Your task to perform on an android device: Open Reddit.com Image 0: 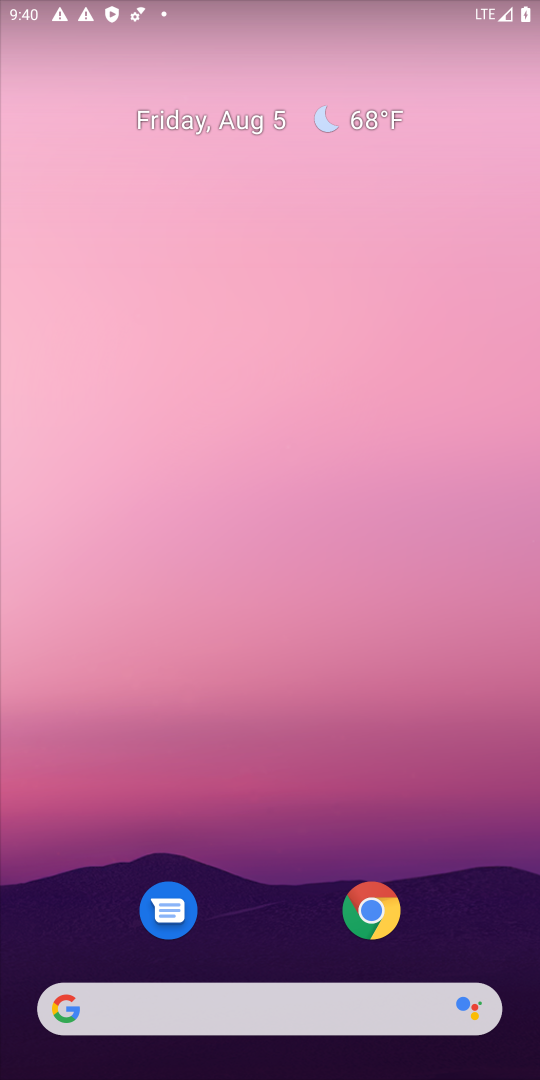
Step 0: drag from (255, 924) to (187, 31)
Your task to perform on an android device: Open Reddit.com Image 1: 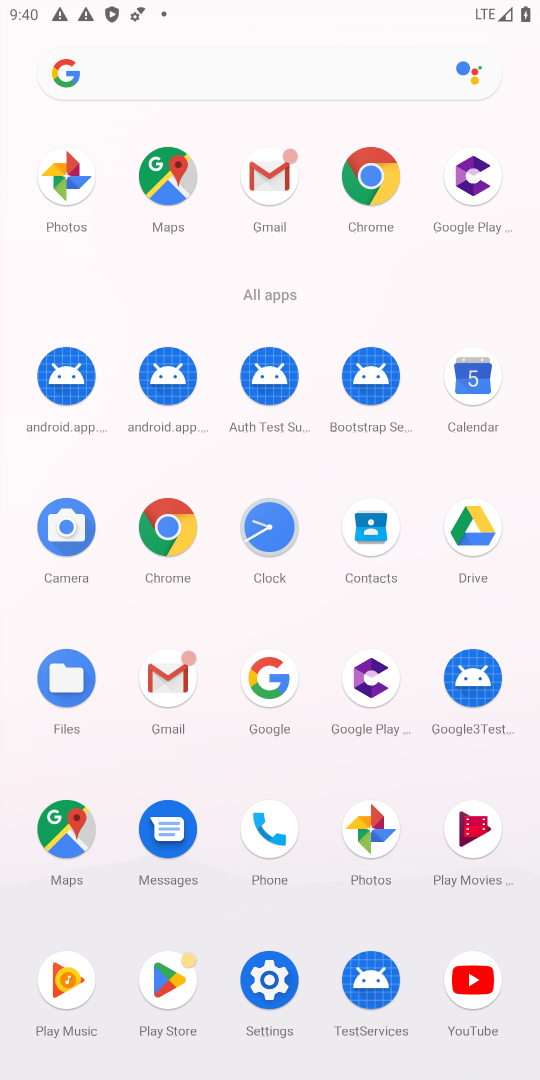
Step 1: click (267, 545)
Your task to perform on an android device: Open Reddit.com Image 2: 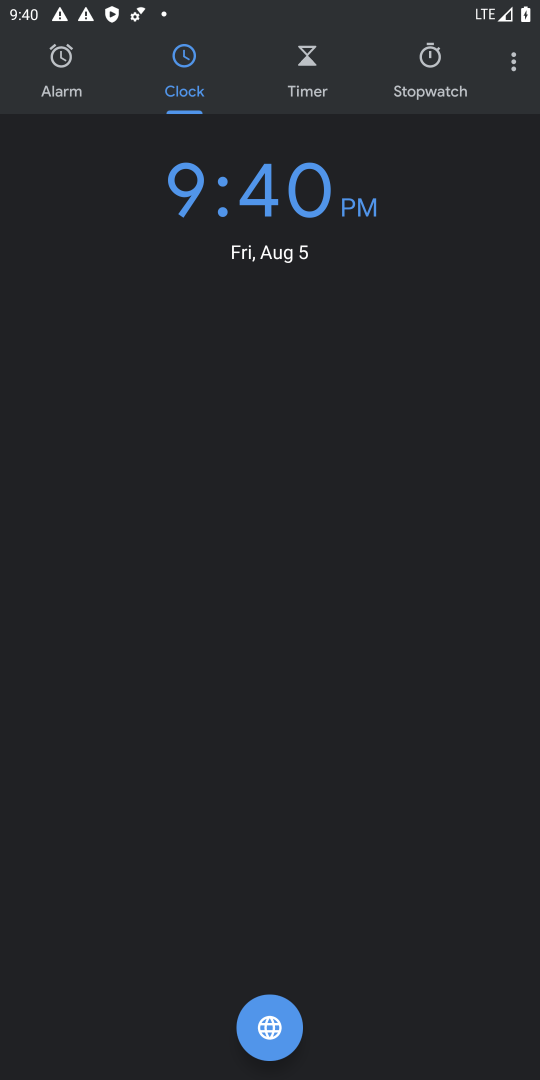
Step 2: press home button
Your task to perform on an android device: Open Reddit.com Image 3: 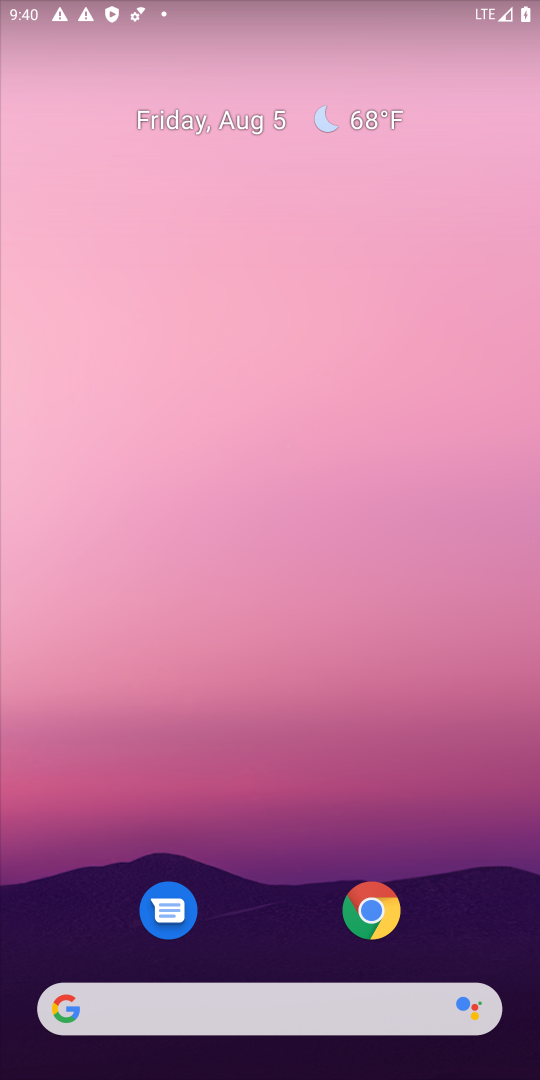
Step 3: click (385, 904)
Your task to perform on an android device: Open Reddit.com Image 4: 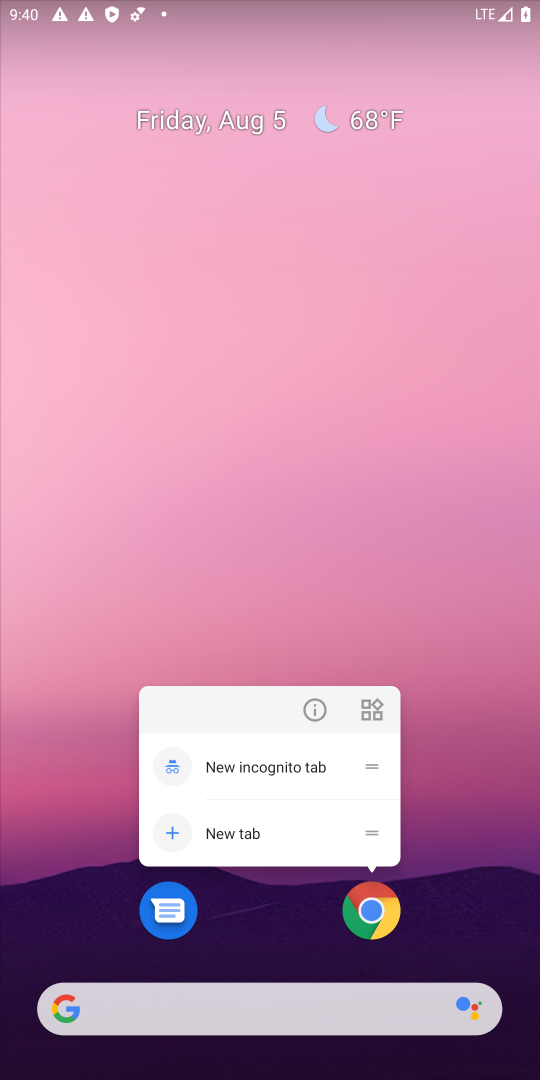
Step 4: click (370, 470)
Your task to perform on an android device: Open Reddit.com Image 5: 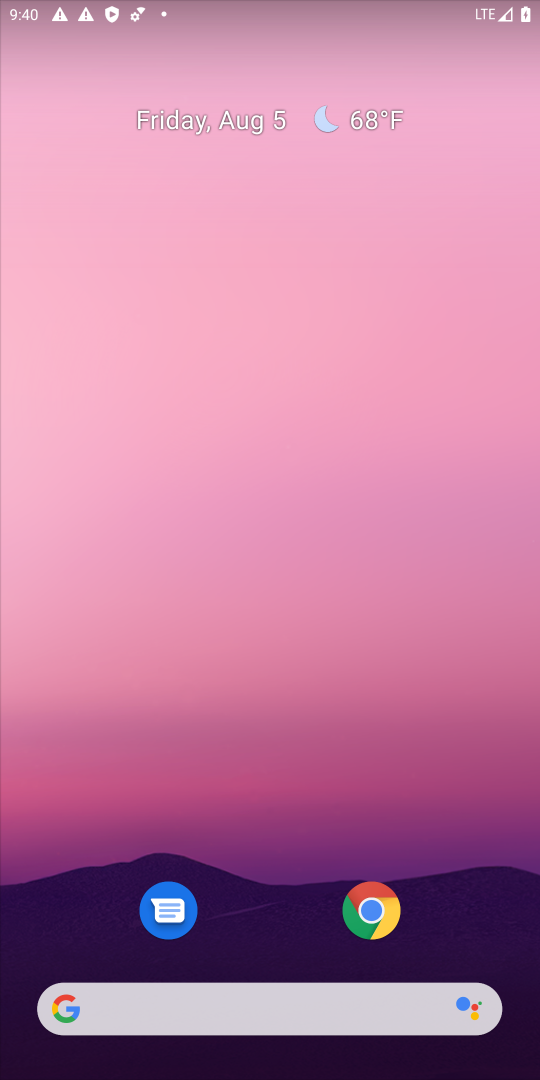
Step 5: click (381, 927)
Your task to perform on an android device: Open Reddit.com Image 6: 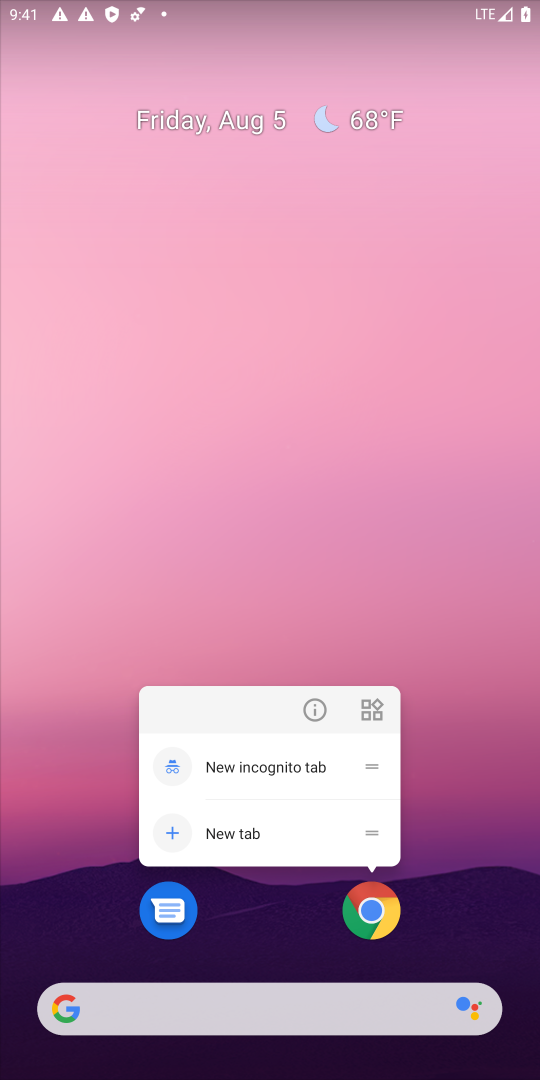
Step 6: click (518, 681)
Your task to perform on an android device: Open Reddit.com Image 7: 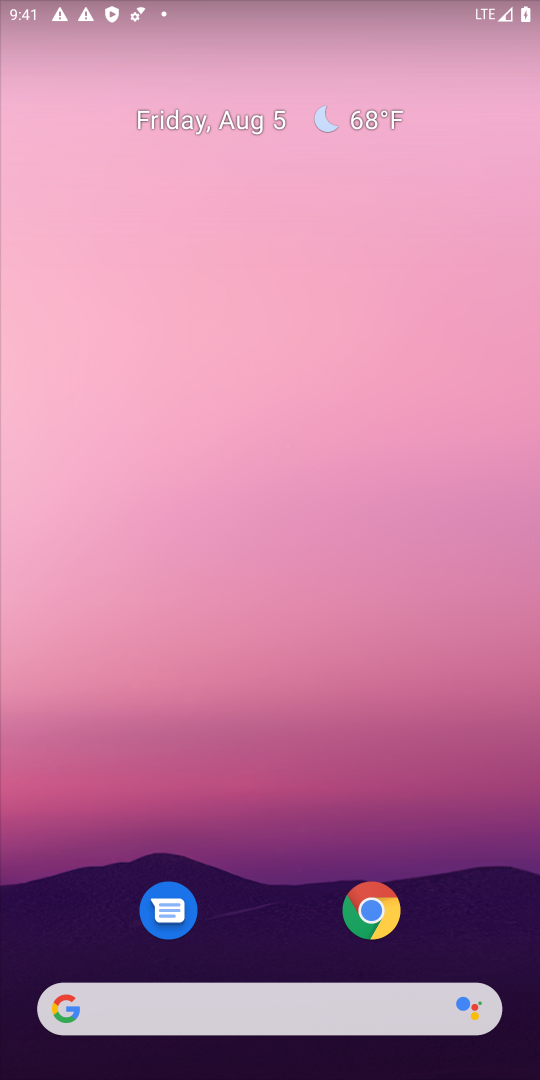
Step 7: click (373, 909)
Your task to perform on an android device: Open Reddit.com Image 8: 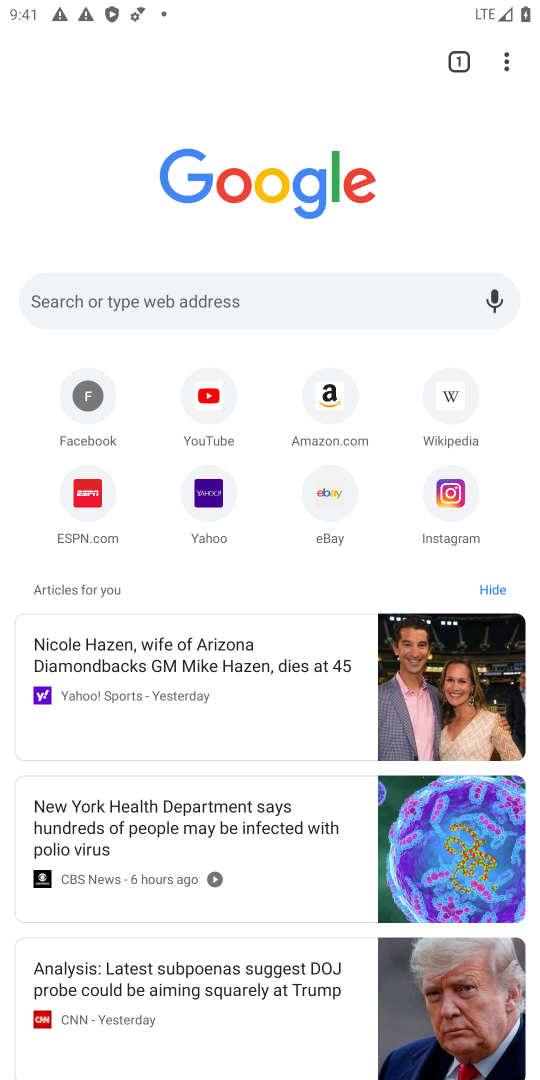
Step 8: click (408, 414)
Your task to perform on an android device: Open Reddit.com Image 9: 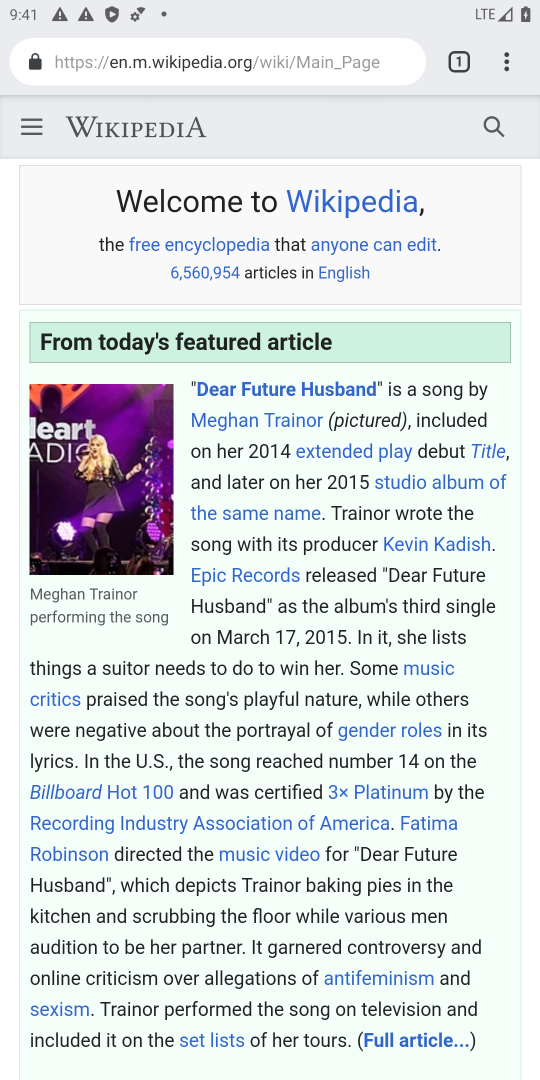
Step 9: click (147, 68)
Your task to perform on an android device: Open Reddit.com Image 10: 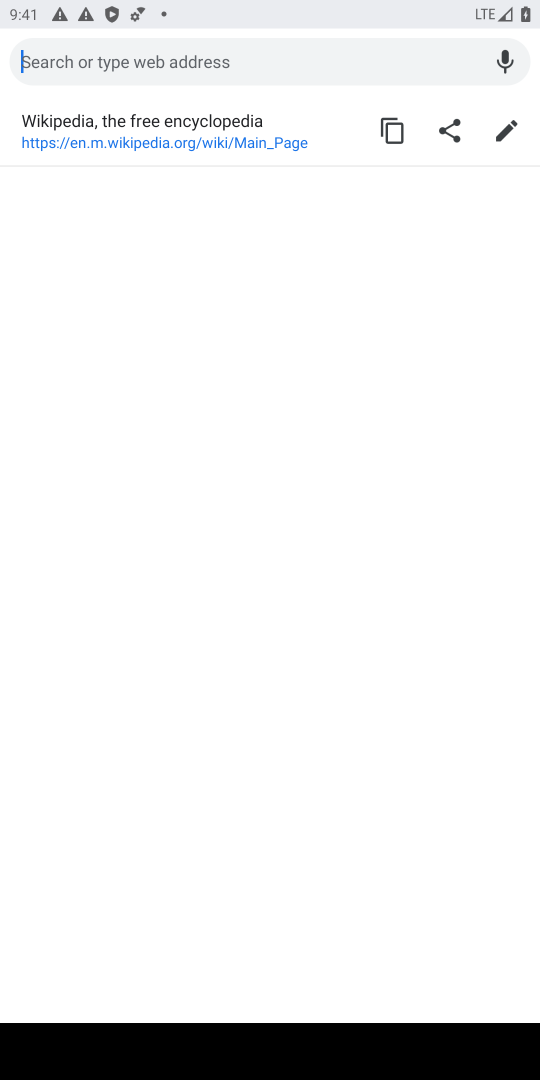
Step 10: type "reddit,com"
Your task to perform on an android device: Open Reddit.com Image 11: 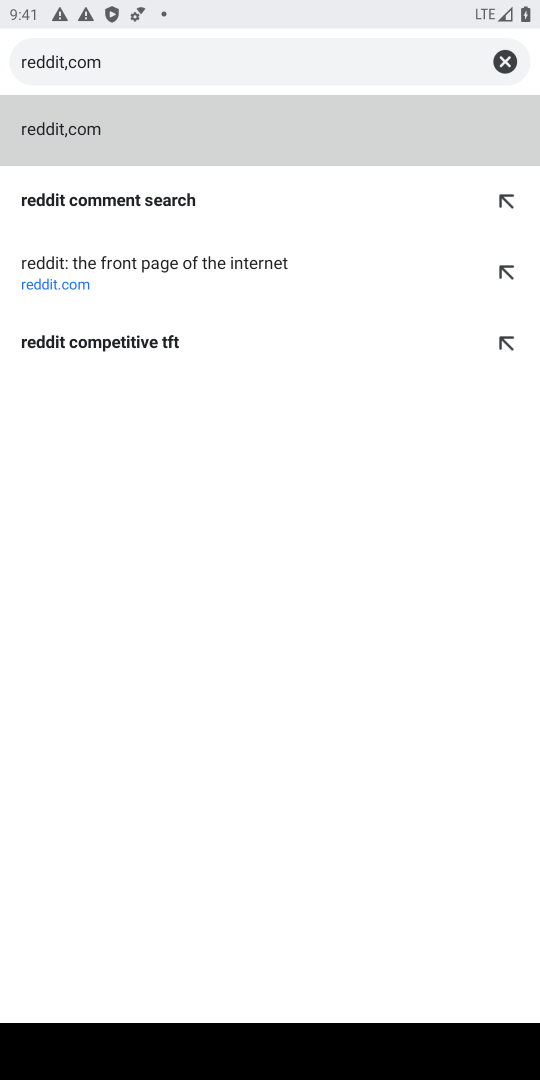
Step 11: click (136, 133)
Your task to perform on an android device: Open Reddit.com Image 12: 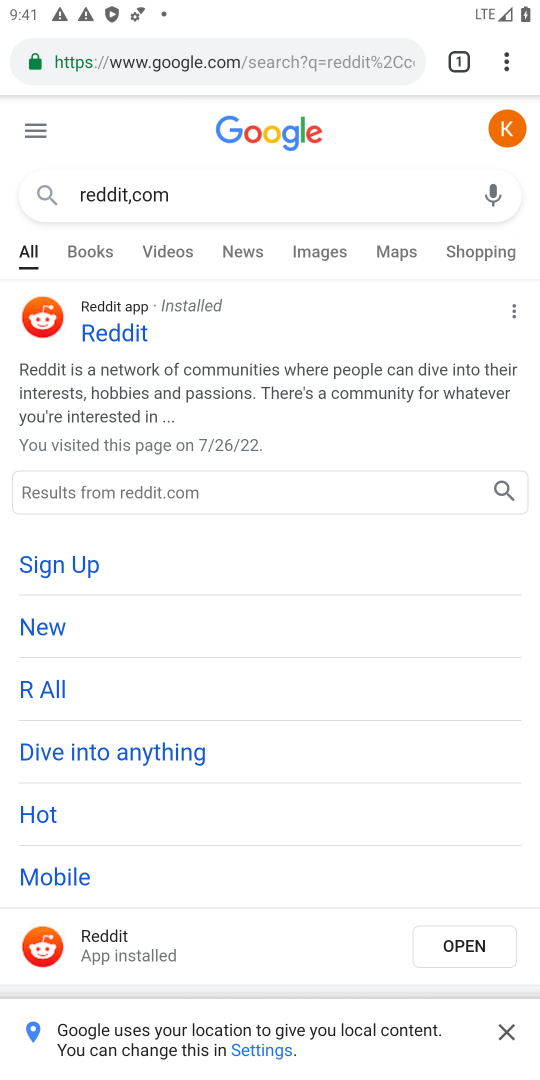
Step 12: click (502, 1032)
Your task to perform on an android device: Open Reddit.com Image 13: 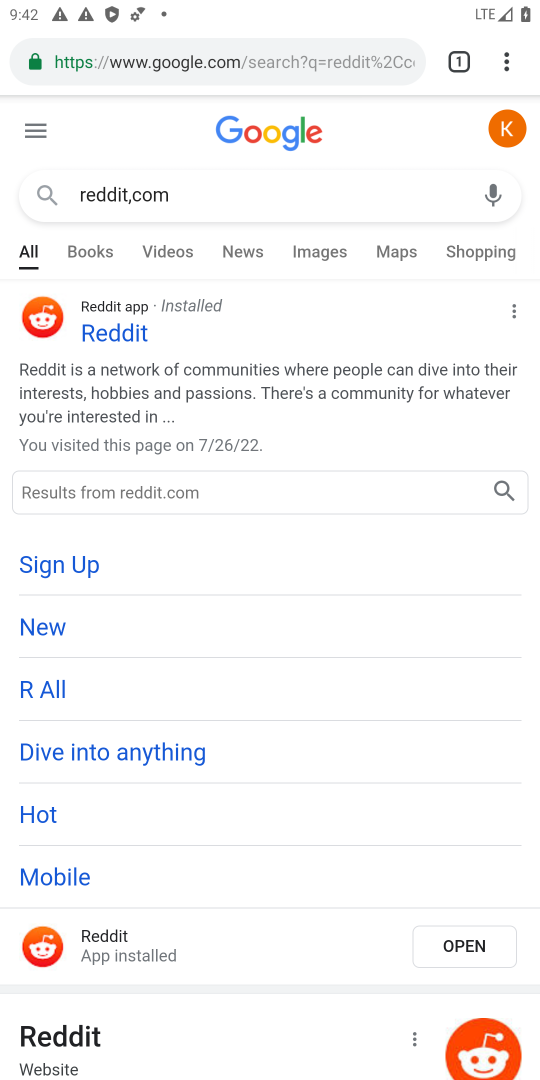
Step 13: task complete